Your task to perform on an android device: Open Wikipedia Image 0: 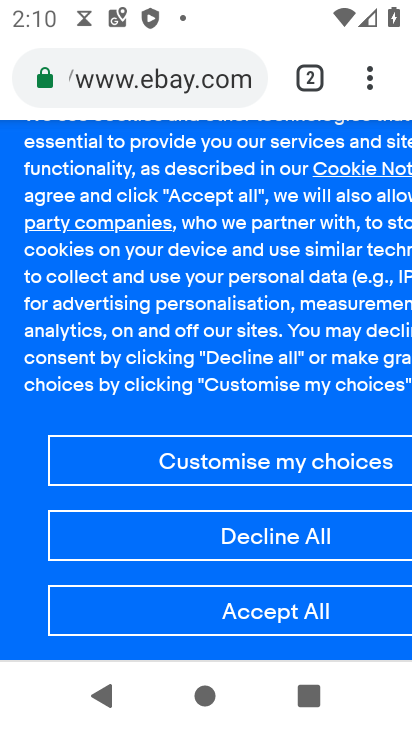
Step 0: click (309, 72)
Your task to perform on an android device: Open Wikipedia Image 1: 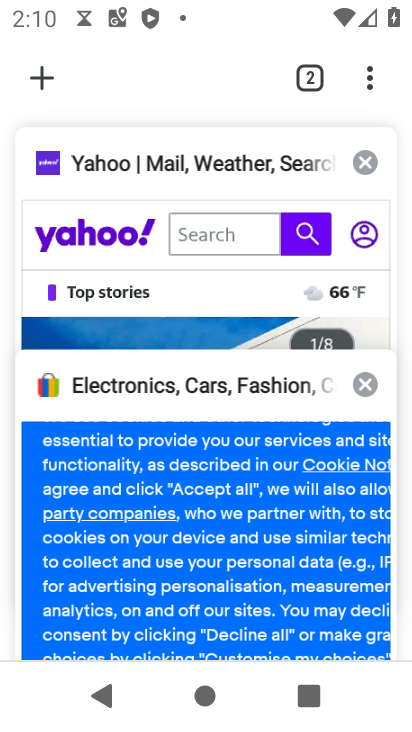
Step 1: click (48, 68)
Your task to perform on an android device: Open Wikipedia Image 2: 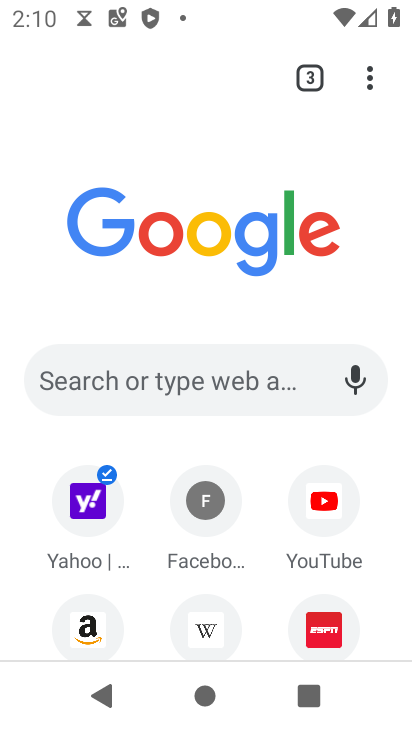
Step 2: click (193, 616)
Your task to perform on an android device: Open Wikipedia Image 3: 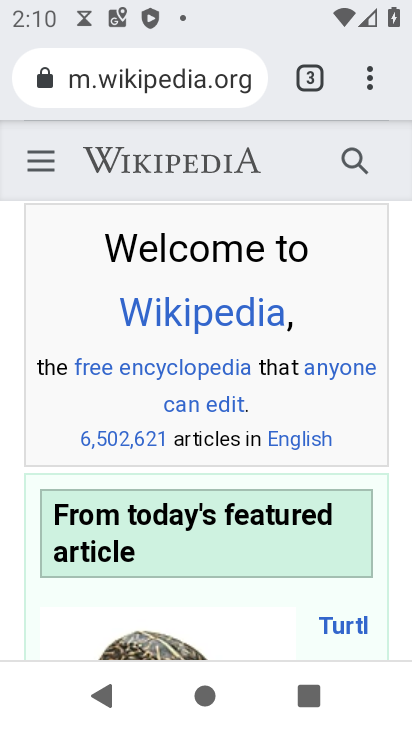
Step 3: task complete